Your task to perform on an android device: toggle priority inbox in the gmail app Image 0: 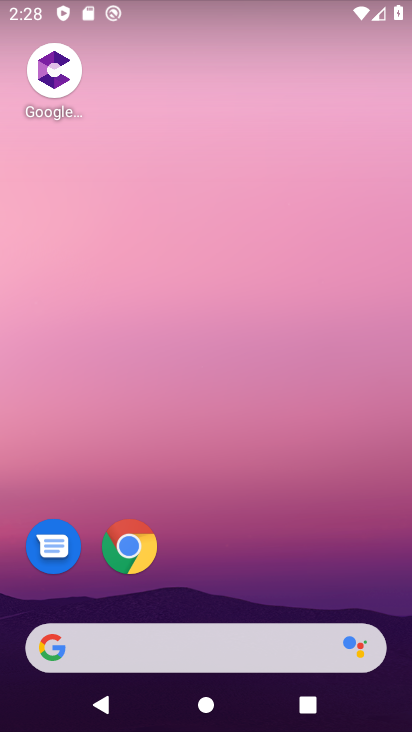
Step 0: drag from (326, 536) to (164, 26)
Your task to perform on an android device: toggle priority inbox in the gmail app Image 1: 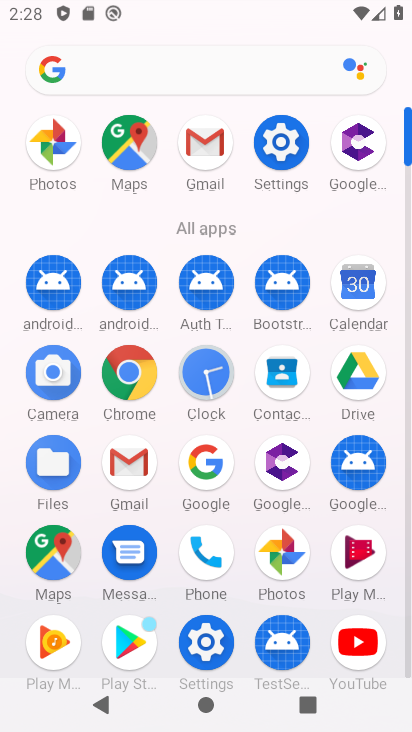
Step 1: click (208, 148)
Your task to perform on an android device: toggle priority inbox in the gmail app Image 2: 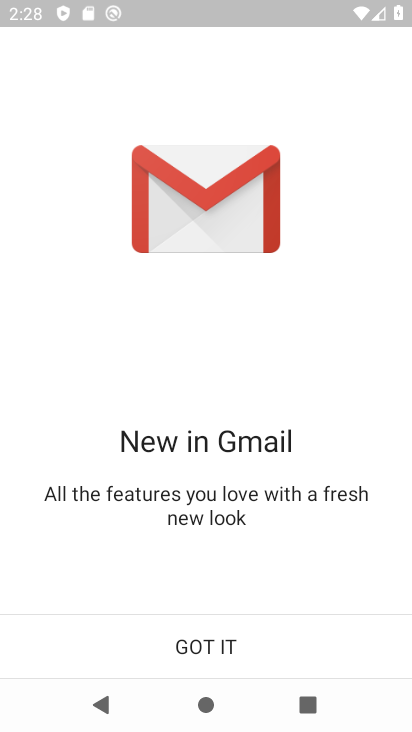
Step 2: click (254, 648)
Your task to perform on an android device: toggle priority inbox in the gmail app Image 3: 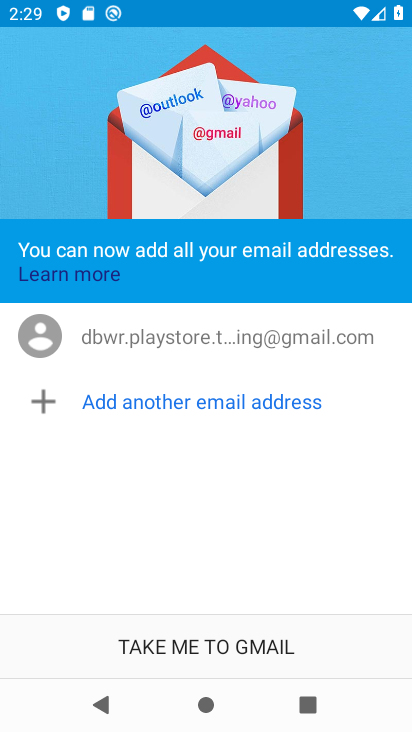
Step 3: click (243, 659)
Your task to perform on an android device: toggle priority inbox in the gmail app Image 4: 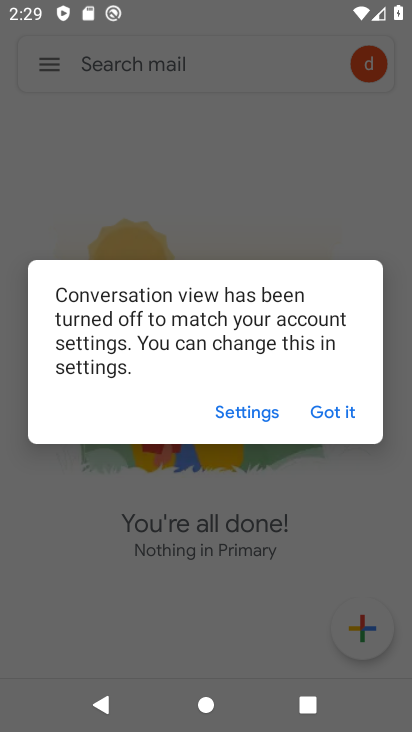
Step 4: click (346, 408)
Your task to perform on an android device: toggle priority inbox in the gmail app Image 5: 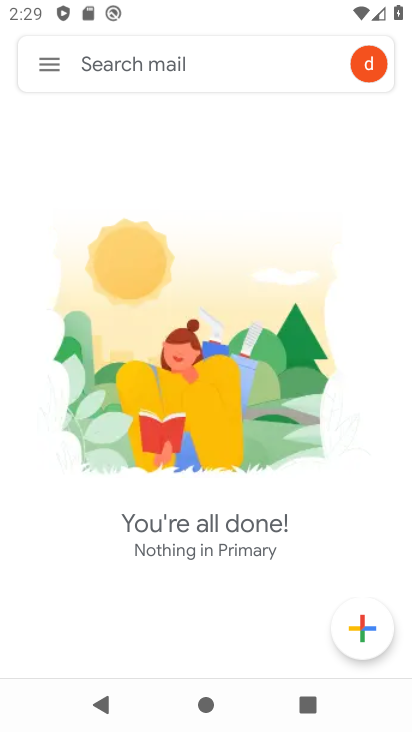
Step 5: click (53, 64)
Your task to perform on an android device: toggle priority inbox in the gmail app Image 6: 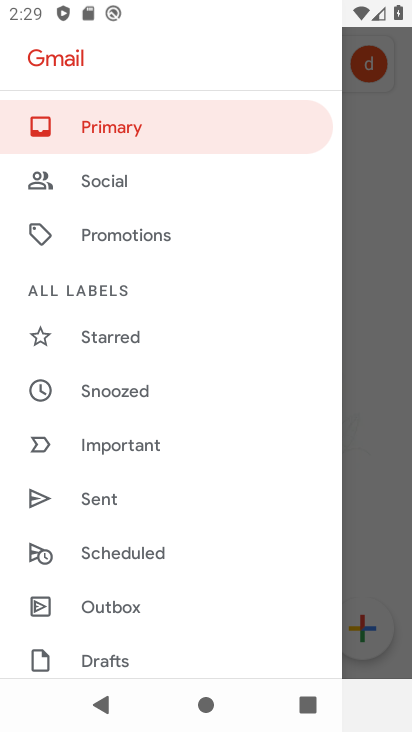
Step 6: drag from (164, 512) to (174, 79)
Your task to perform on an android device: toggle priority inbox in the gmail app Image 7: 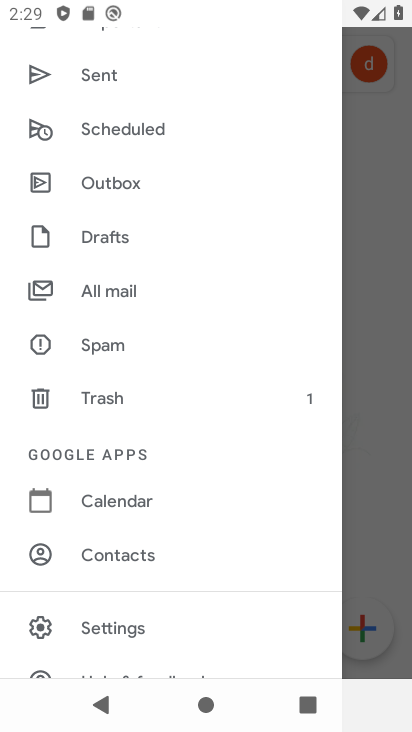
Step 7: drag from (153, 584) to (156, 111)
Your task to perform on an android device: toggle priority inbox in the gmail app Image 8: 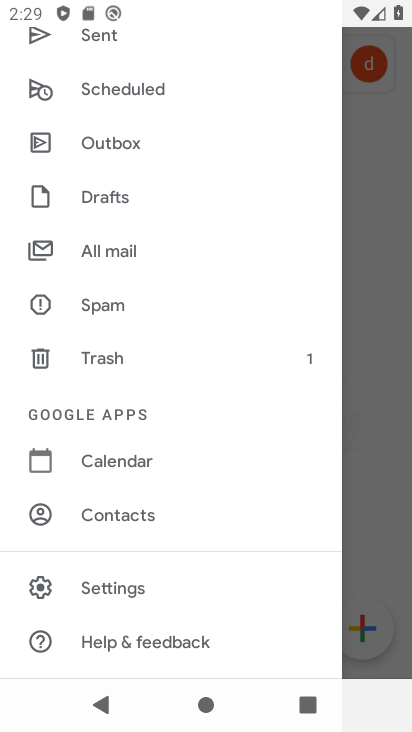
Step 8: click (183, 582)
Your task to perform on an android device: toggle priority inbox in the gmail app Image 9: 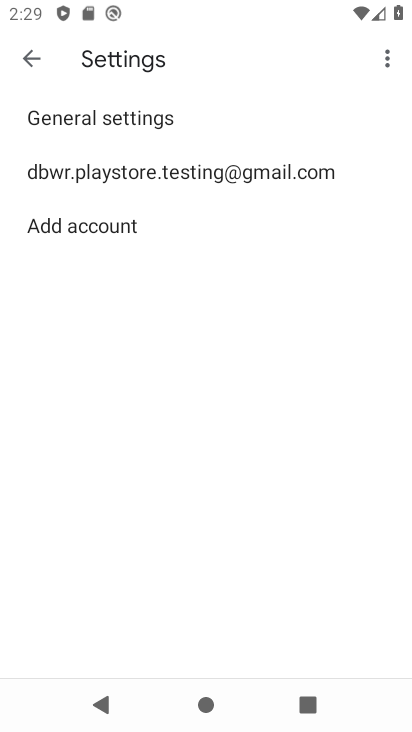
Step 9: click (210, 172)
Your task to perform on an android device: toggle priority inbox in the gmail app Image 10: 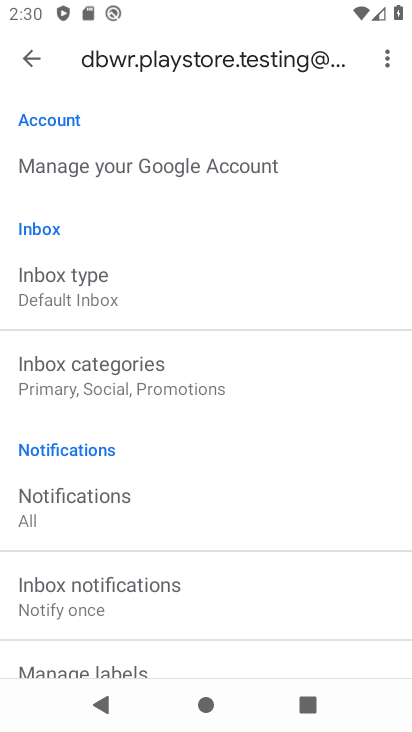
Step 10: drag from (193, 549) to (236, 708)
Your task to perform on an android device: toggle priority inbox in the gmail app Image 11: 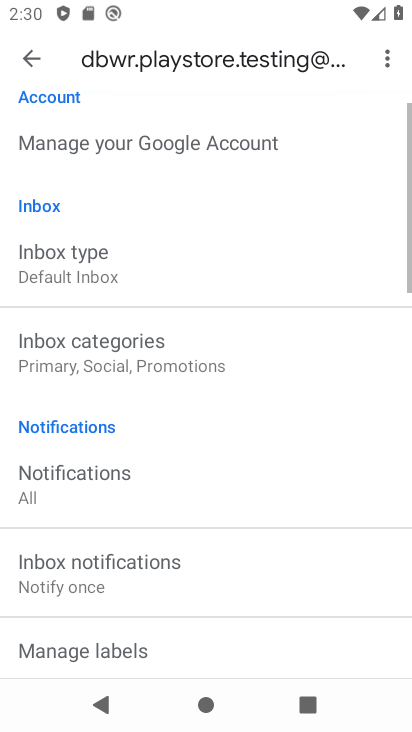
Step 11: drag from (144, 229) to (269, 675)
Your task to perform on an android device: toggle priority inbox in the gmail app Image 12: 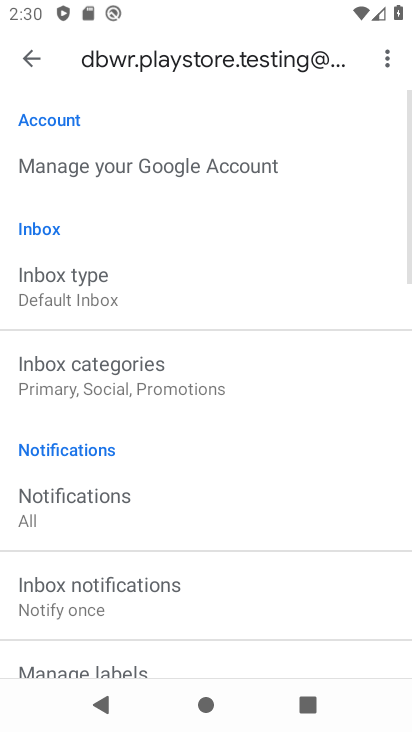
Step 12: click (88, 287)
Your task to perform on an android device: toggle priority inbox in the gmail app Image 13: 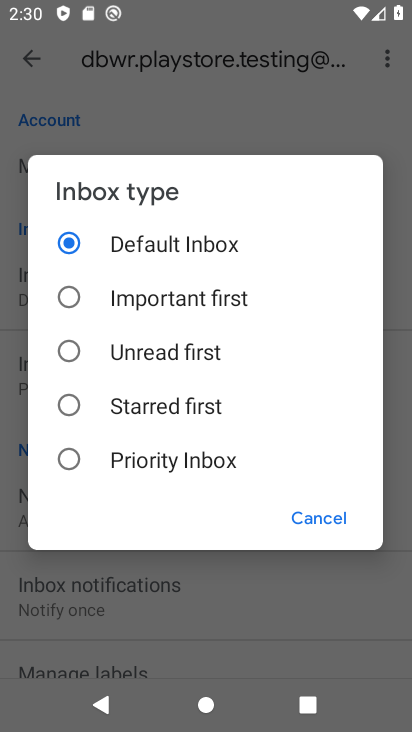
Step 13: click (139, 459)
Your task to perform on an android device: toggle priority inbox in the gmail app Image 14: 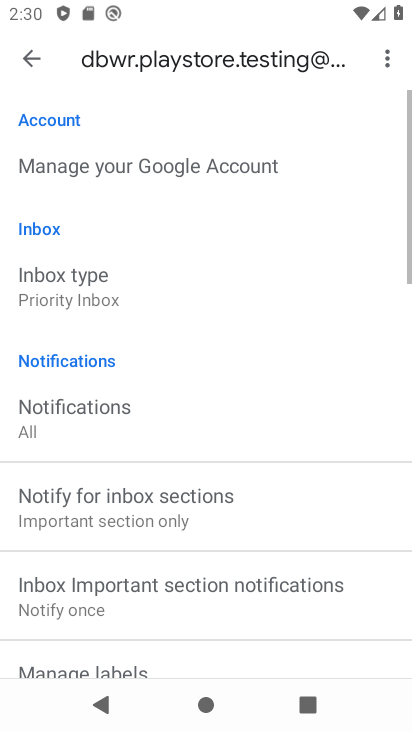
Step 14: task complete